Your task to perform on an android device: Go to Google maps Image 0: 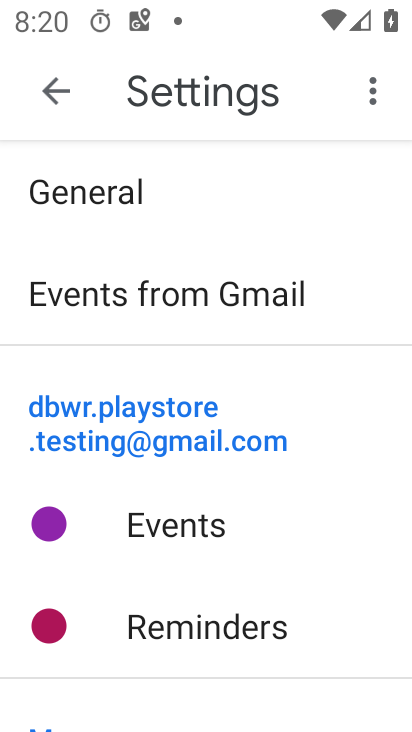
Step 0: press home button
Your task to perform on an android device: Go to Google maps Image 1: 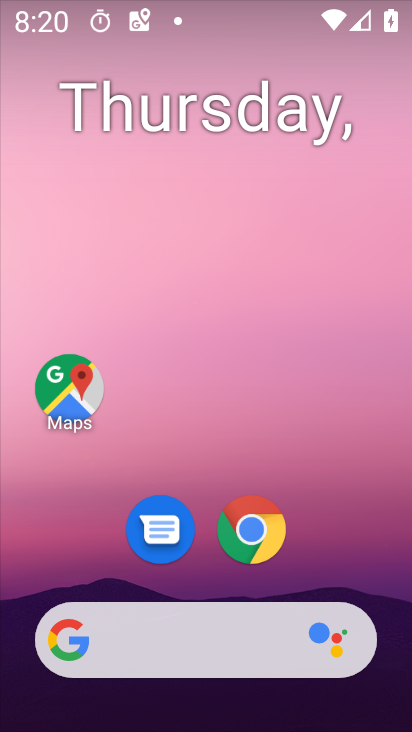
Step 1: click (53, 385)
Your task to perform on an android device: Go to Google maps Image 2: 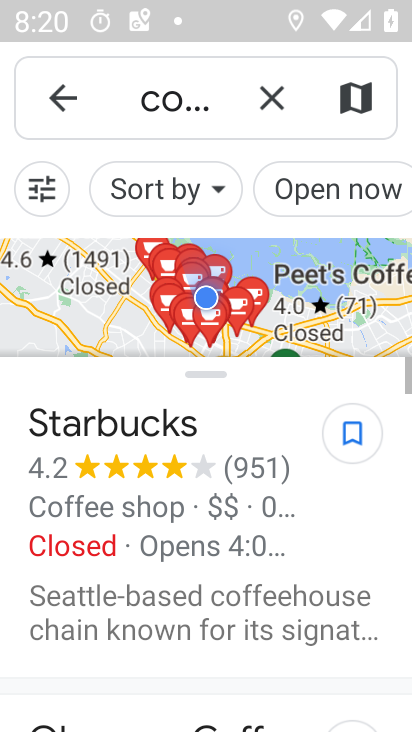
Step 2: click (56, 99)
Your task to perform on an android device: Go to Google maps Image 3: 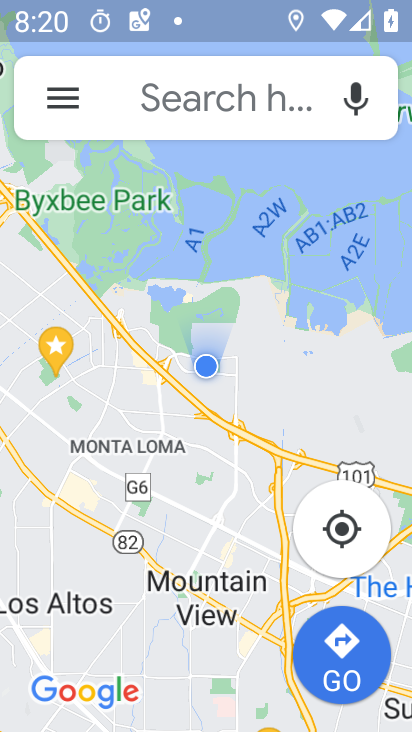
Step 3: task complete